Your task to perform on an android device: Find coffee shops on Maps Image 0: 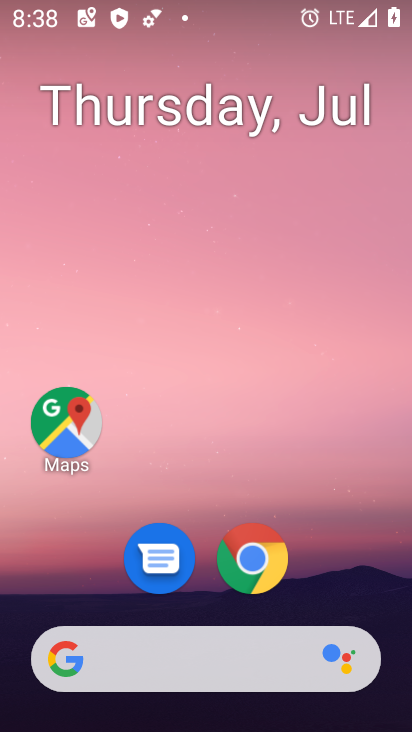
Step 0: drag from (241, 652) to (257, 78)
Your task to perform on an android device: Find coffee shops on Maps Image 1: 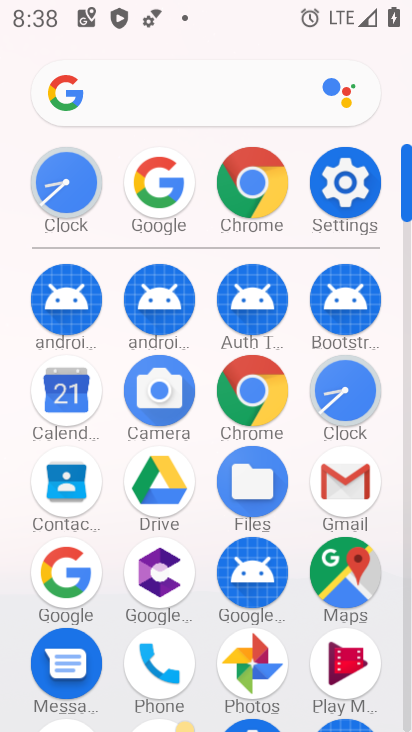
Step 1: click (353, 588)
Your task to perform on an android device: Find coffee shops on Maps Image 2: 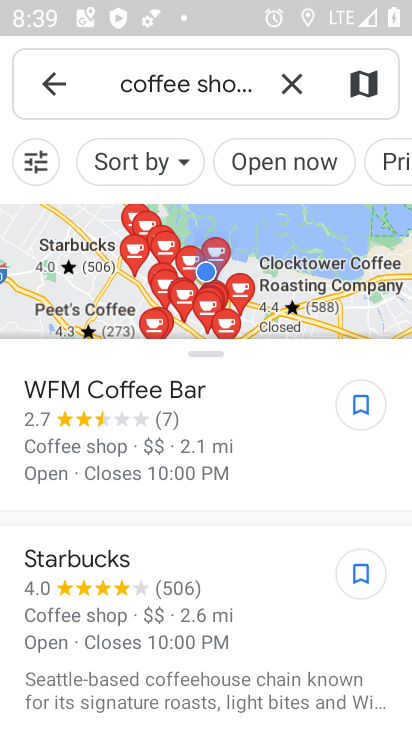
Step 2: task complete